Your task to perform on an android device: change the clock display to digital Image 0: 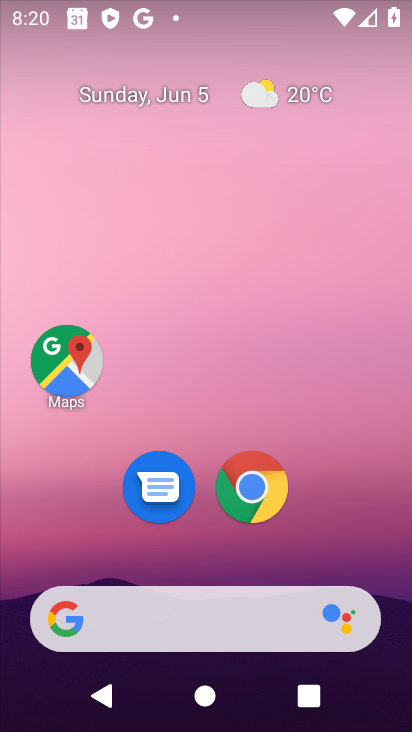
Step 0: drag from (214, 514) to (277, 22)
Your task to perform on an android device: change the clock display to digital Image 1: 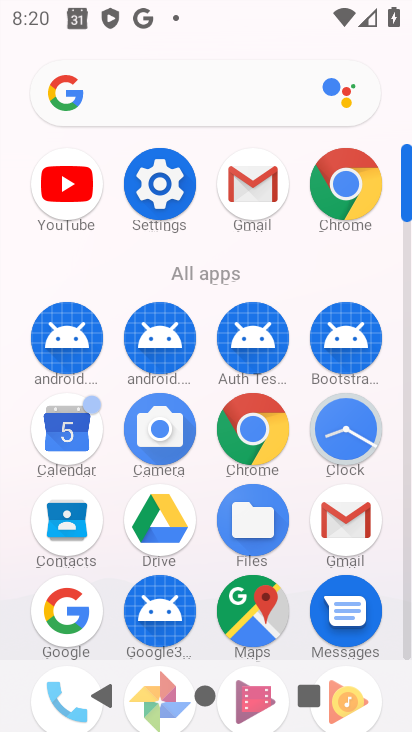
Step 1: click (342, 449)
Your task to perform on an android device: change the clock display to digital Image 2: 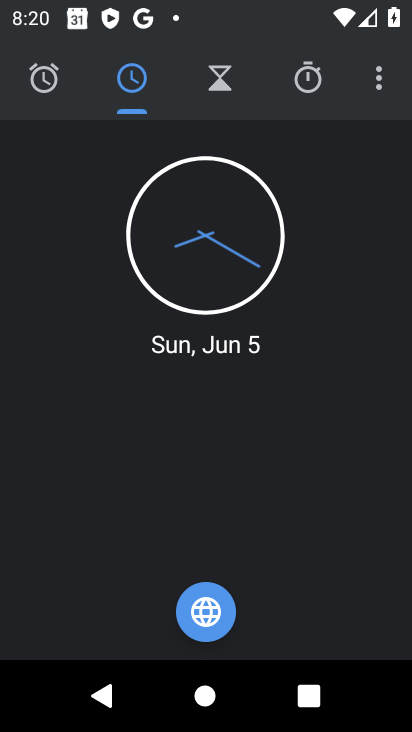
Step 2: click (376, 82)
Your task to perform on an android device: change the clock display to digital Image 3: 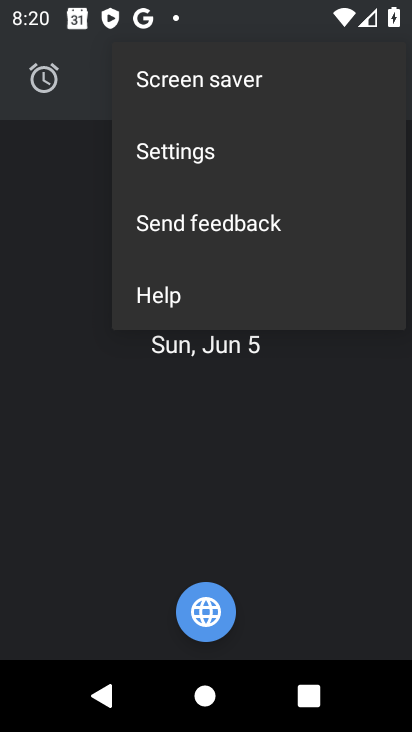
Step 3: click (189, 154)
Your task to perform on an android device: change the clock display to digital Image 4: 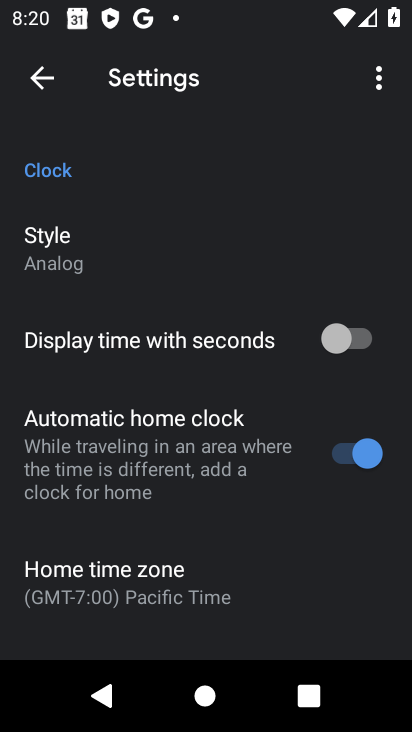
Step 4: click (45, 244)
Your task to perform on an android device: change the clock display to digital Image 5: 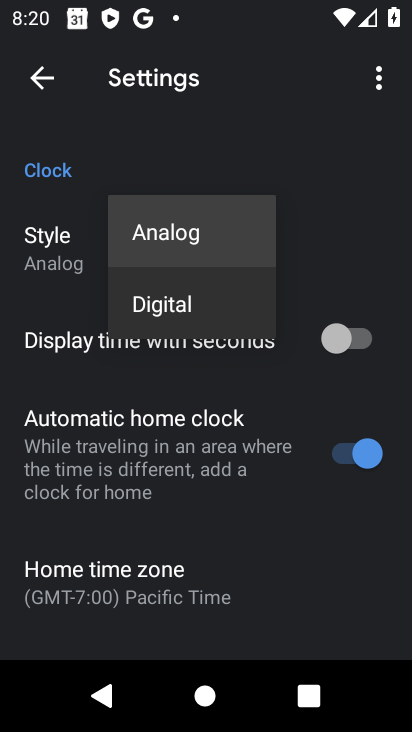
Step 5: click (144, 303)
Your task to perform on an android device: change the clock display to digital Image 6: 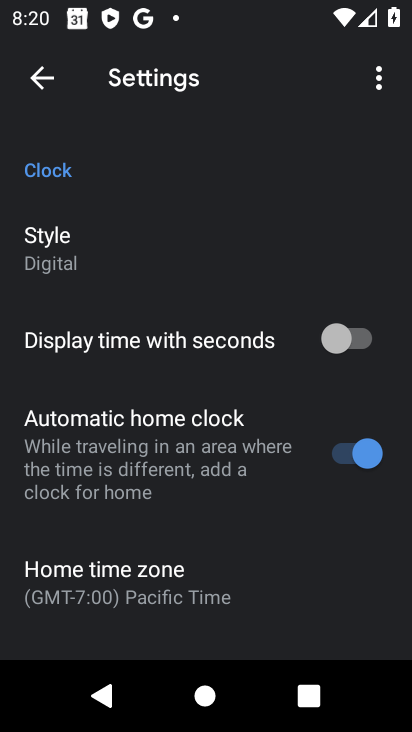
Step 6: task complete